Your task to perform on an android device: create a new album in the google photos Image 0: 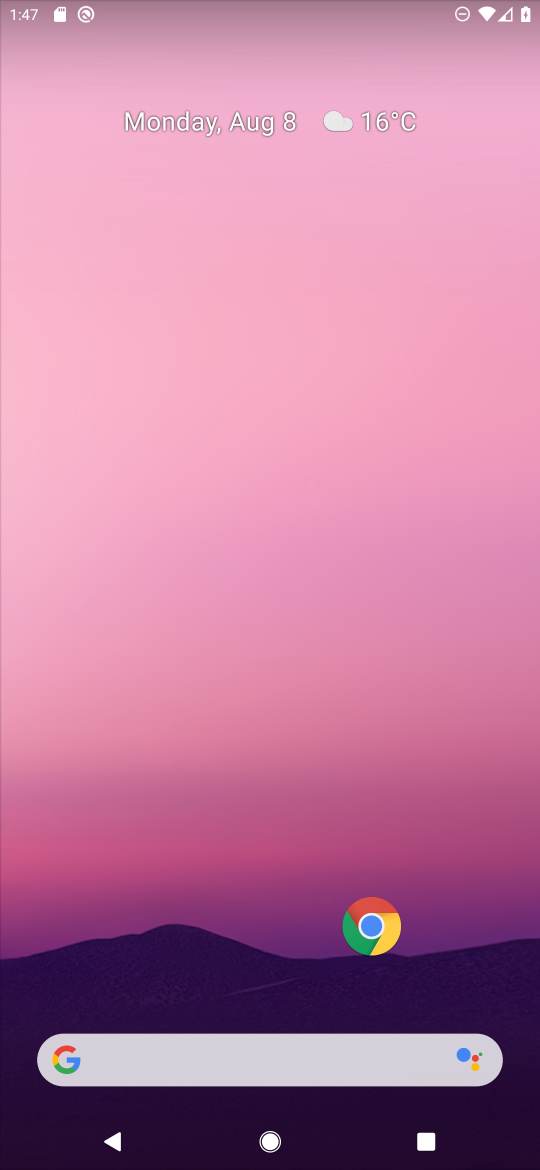
Step 0: drag from (3, 964) to (187, 201)
Your task to perform on an android device: create a new album in the google photos Image 1: 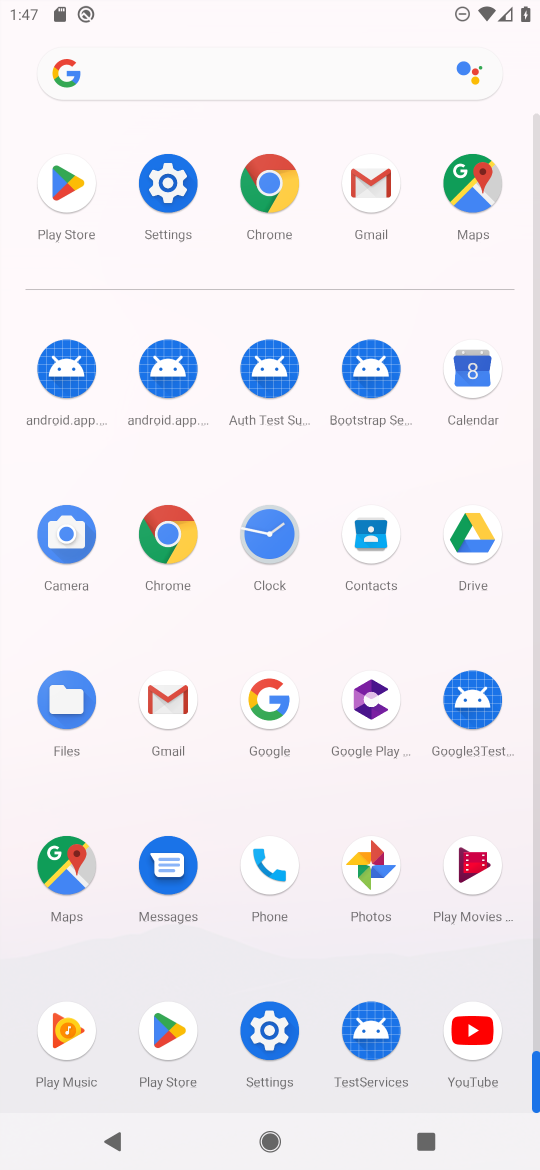
Step 1: click (381, 855)
Your task to perform on an android device: create a new album in the google photos Image 2: 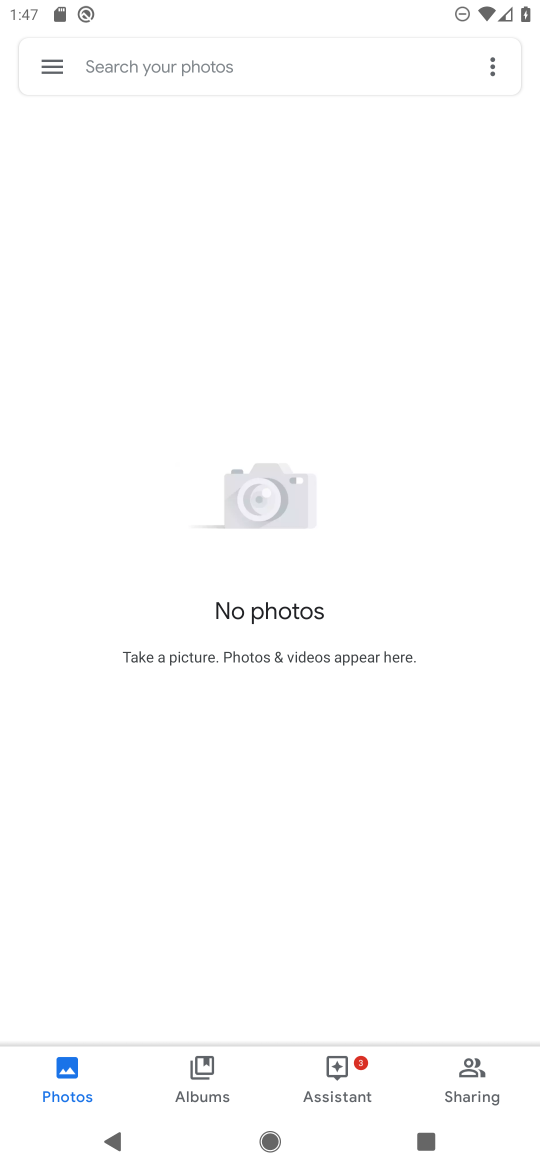
Step 2: click (201, 1084)
Your task to perform on an android device: create a new album in the google photos Image 3: 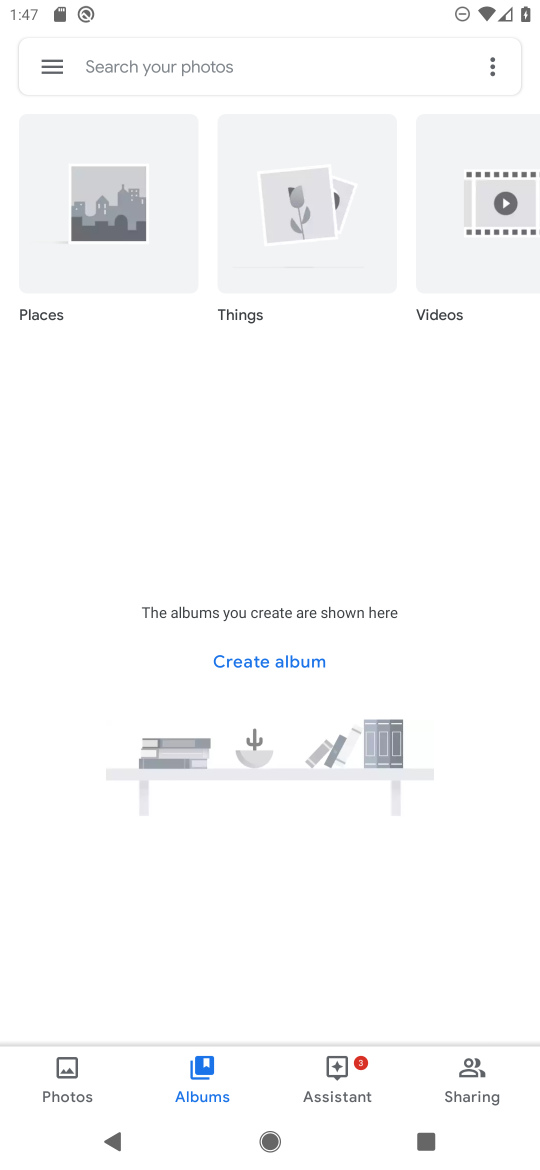
Step 3: click (75, 1068)
Your task to perform on an android device: create a new album in the google photos Image 4: 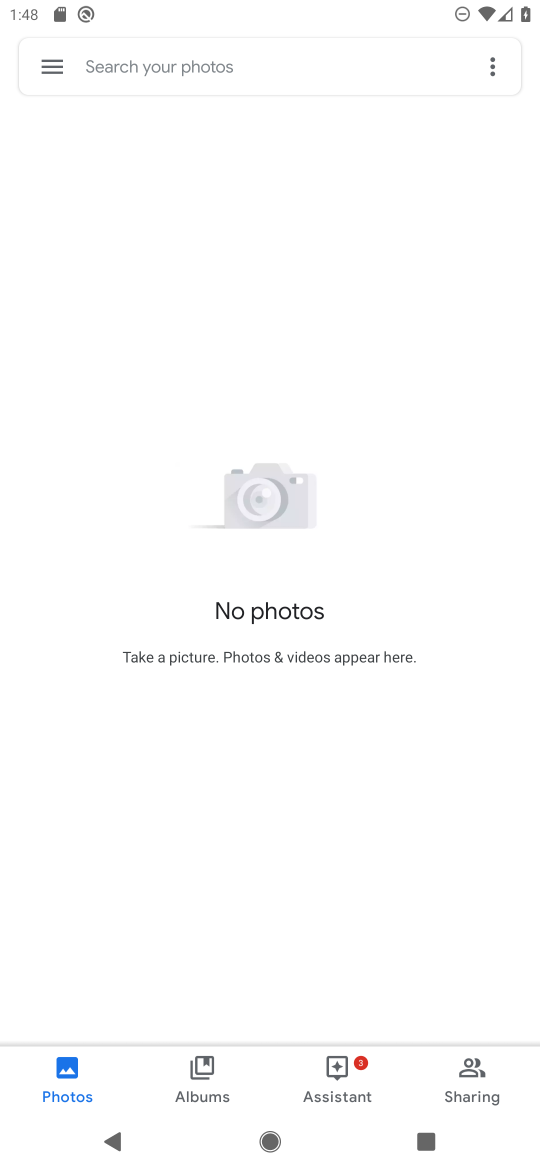
Step 4: task complete